Your task to perform on an android device: Open location settings Image 0: 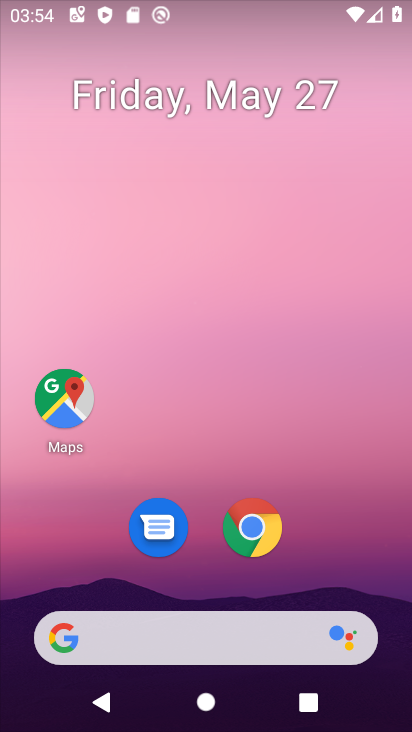
Step 0: drag from (336, 591) to (339, 161)
Your task to perform on an android device: Open location settings Image 1: 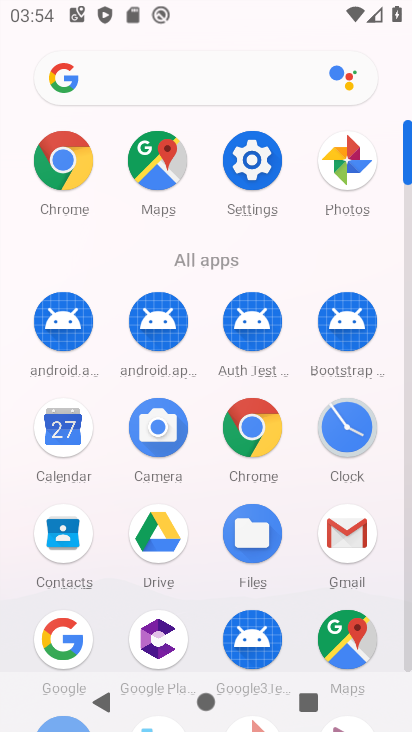
Step 1: click (237, 149)
Your task to perform on an android device: Open location settings Image 2: 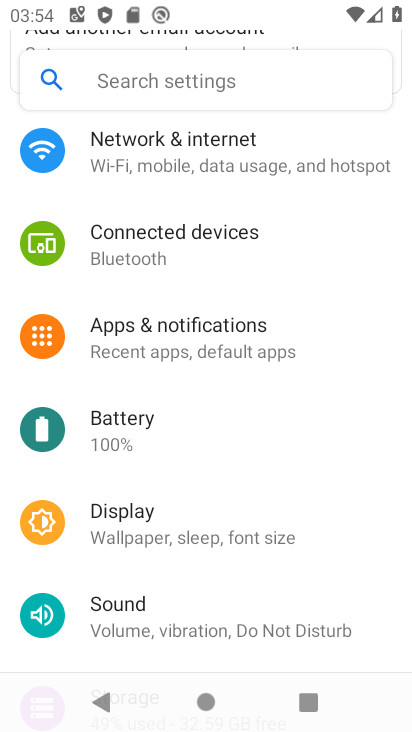
Step 2: drag from (221, 498) to (248, 152)
Your task to perform on an android device: Open location settings Image 3: 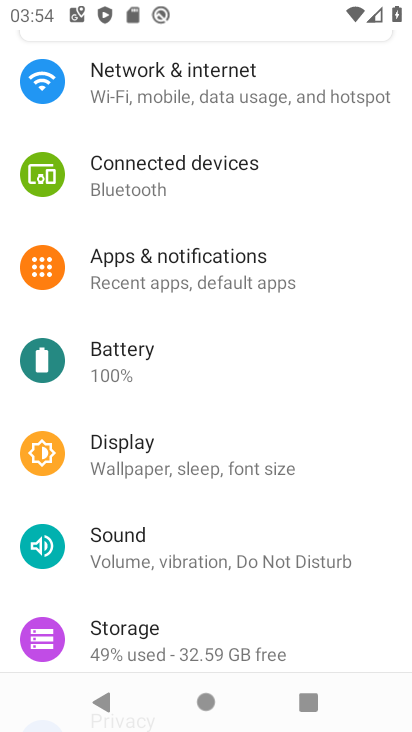
Step 3: drag from (193, 565) to (213, 353)
Your task to perform on an android device: Open location settings Image 4: 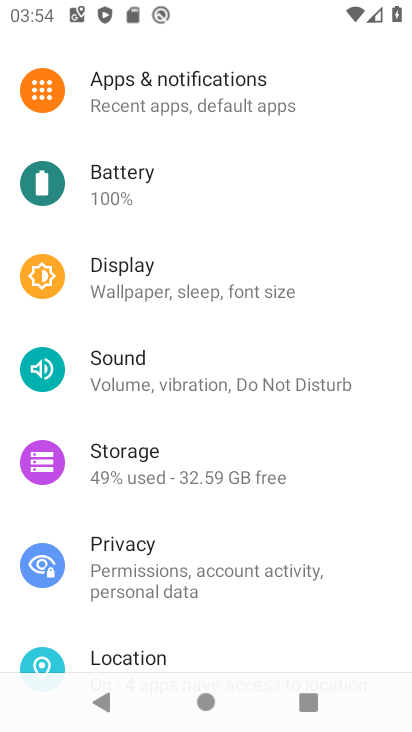
Step 4: click (224, 650)
Your task to perform on an android device: Open location settings Image 5: 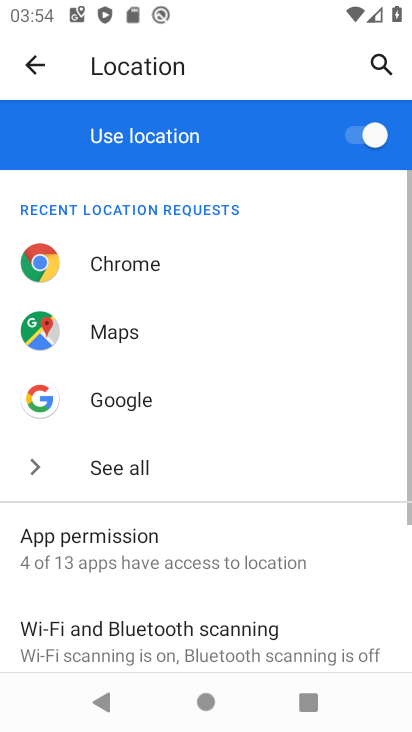
Step 5: task complete